Your task to perform on an android device: turn on the 12-hour format for clock Image 0: 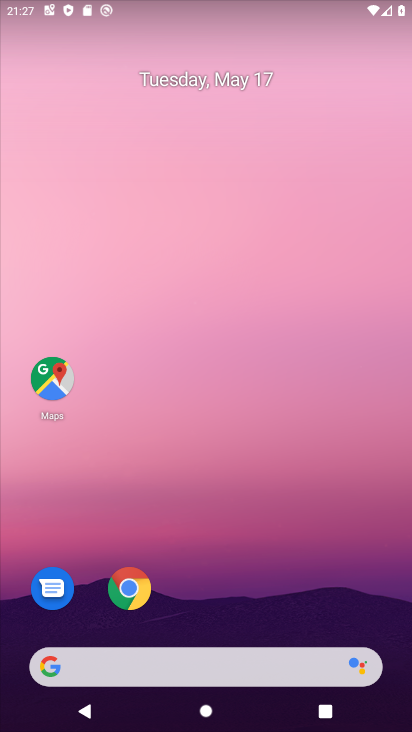
Step 0: click (384, 694)
Your task to perform on an android device: turn on the 12-hour format for clock Image 1: 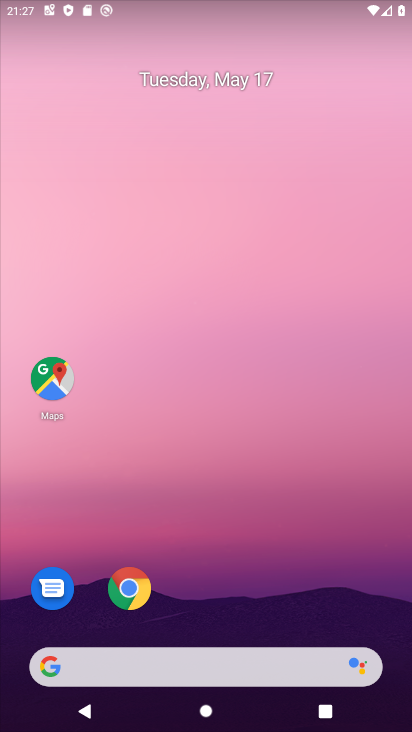
Step 1: drag from (199, 634) to (111, 59)
Your task to perform on an android device: turn on the 12-hour format for clock Image 2: 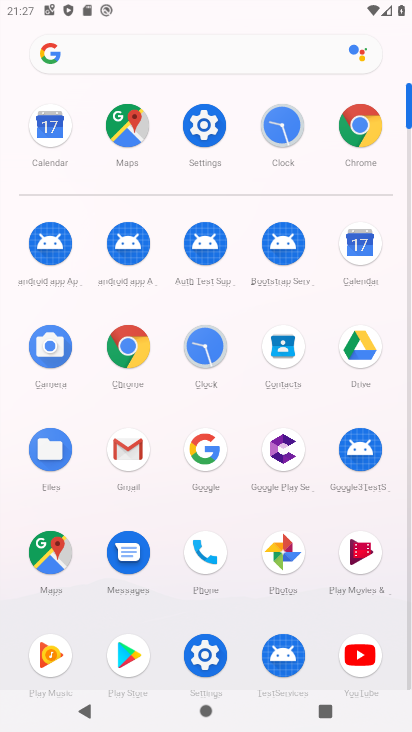
Step 2: click (213, 362)
Your task to perform on an android device: turn on the 12-hour format for clock Image 3: 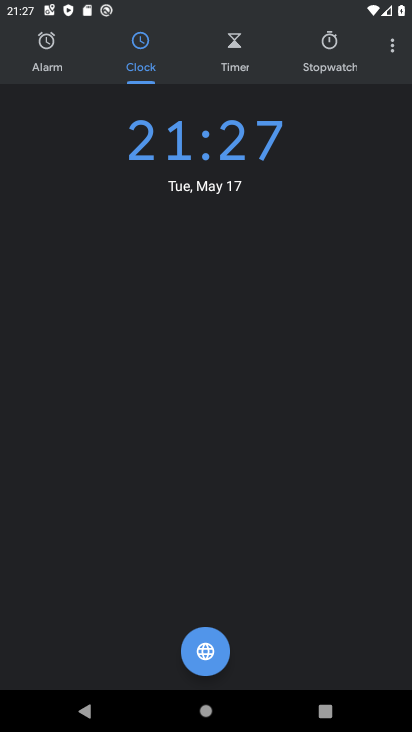
Step 3: click (388, 49)
Your task to perform on an android device: turn on the 12-hour format for clock Image 4: 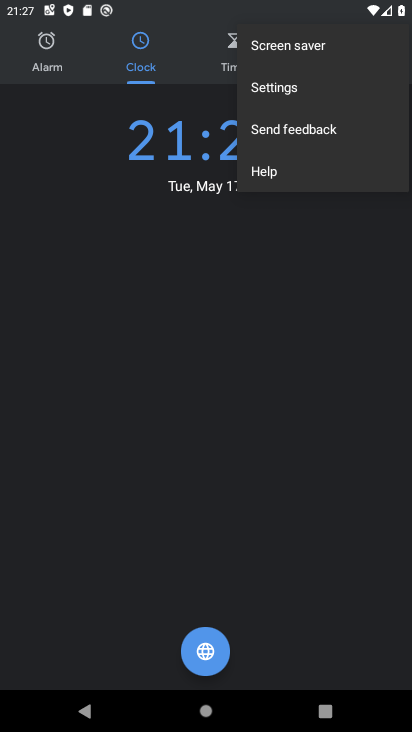
Step 4: click (245, 92)
Your task to perform on an android device: turn on the 12-hour format for clock Image 5: 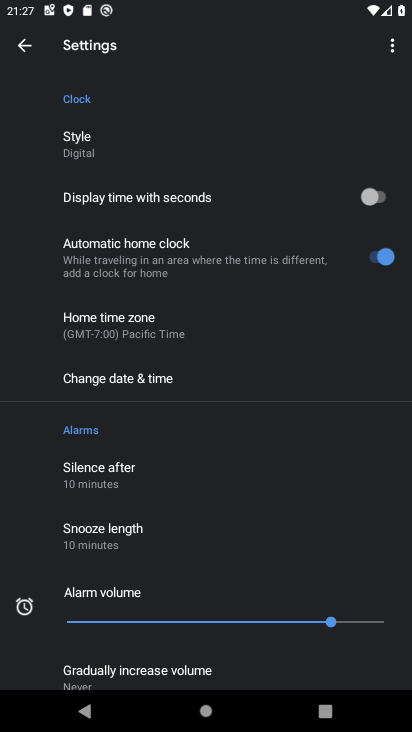
Step 5: click (146, 379)
Your task to perform on an android device: turn on the 12-hour format for clock Image 6: 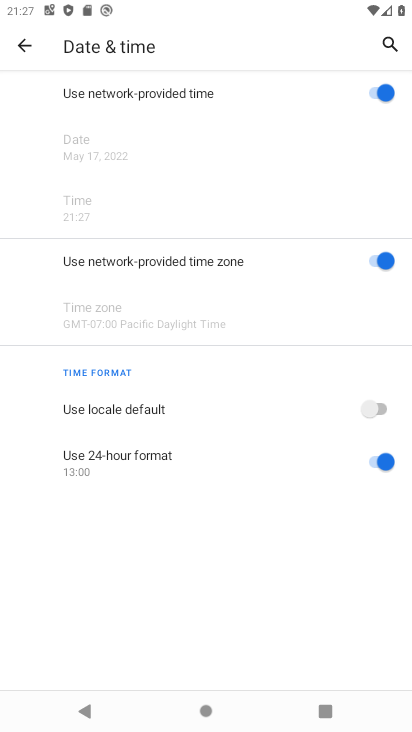
Step 6: click (379, 459)
Your task to perform on an android device: turn on the 12-hour format for clock Image 7: 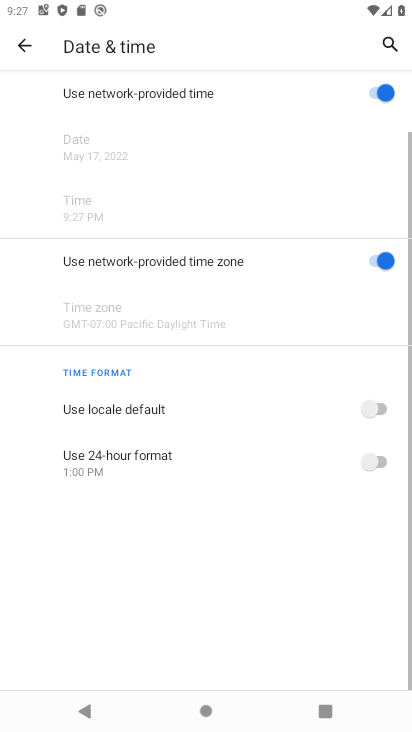
Step 7: task complete